Your task to perform on an android device: turn off improve location accuracy Image 0: 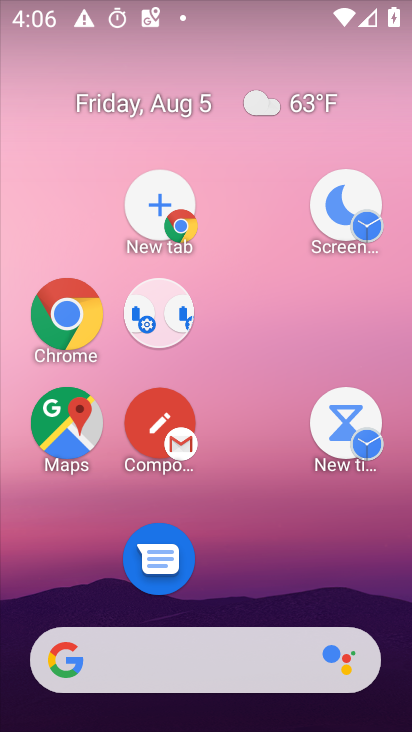
Step 0: click (163, 172)
Your task to perform on an android device: turn off improve location accuracy Image 1: 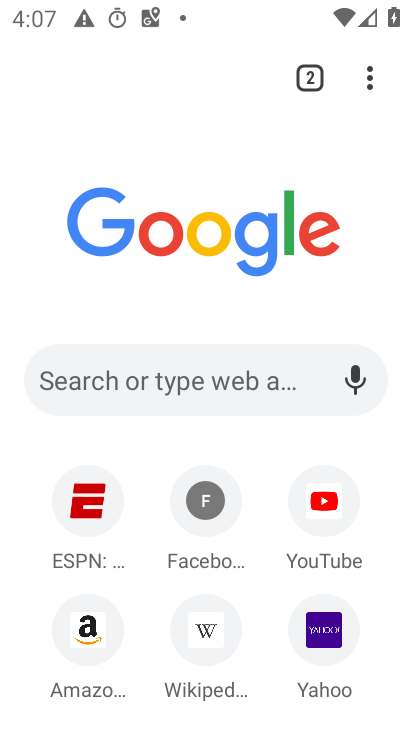
Step 1: click (364, 91)
Your task to perform on an android device: turn off improve location accuracy Image 2: 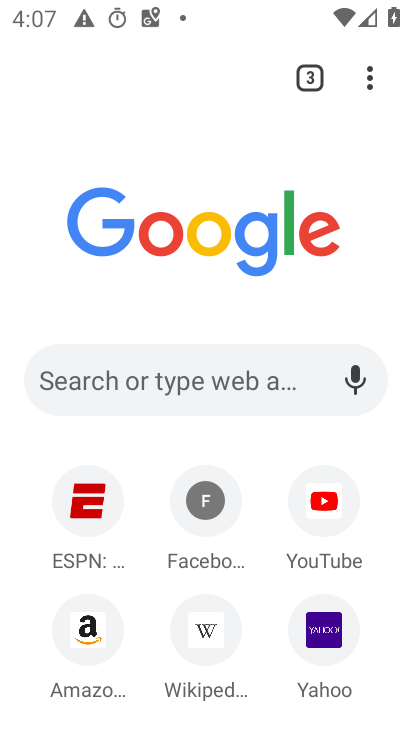
Step 2: press back button
Your task to perform on an android device: turn off improve location accuracy Image 3: 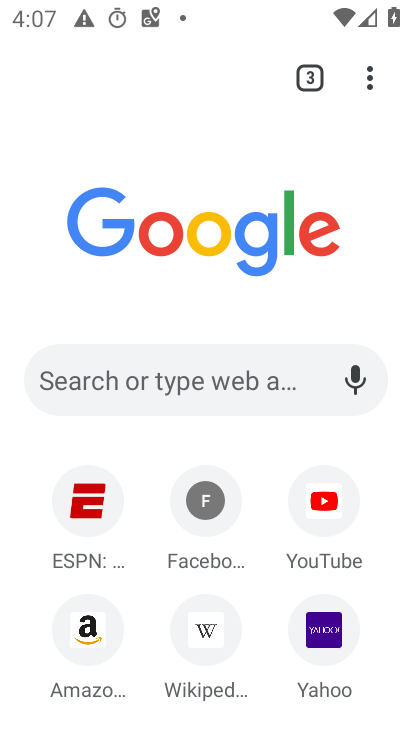
Step 3: press back button
Your task to perform on an android device: turn off improve location accuracy Image 4: 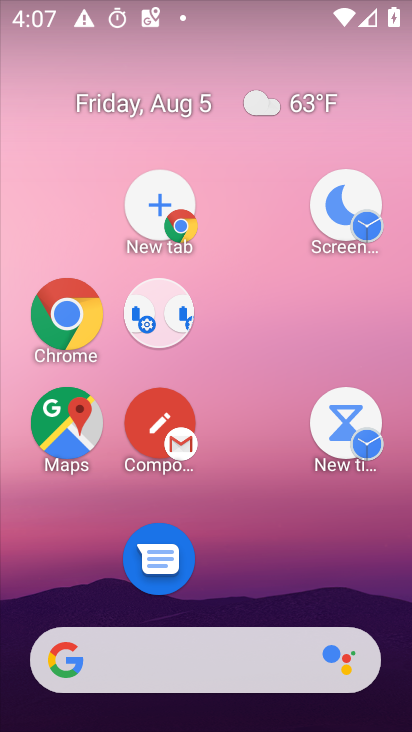
Step 4: press back button
Your task to perform on an android device: turn off improve location accuracy Image 5: 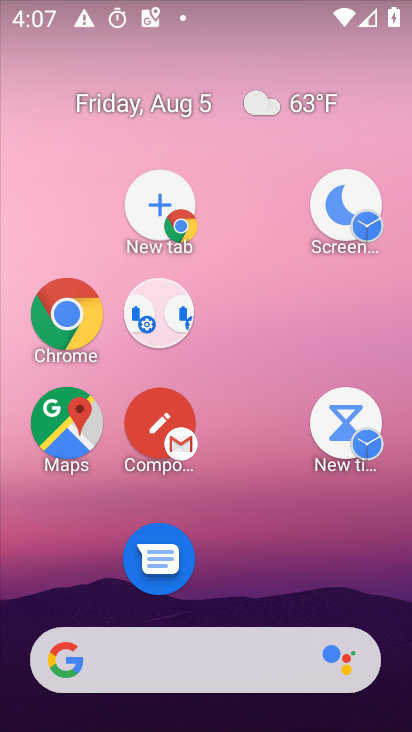
Step 5: press home button
Your task to perform on an android device: turn off improve location accuracy Image 6: 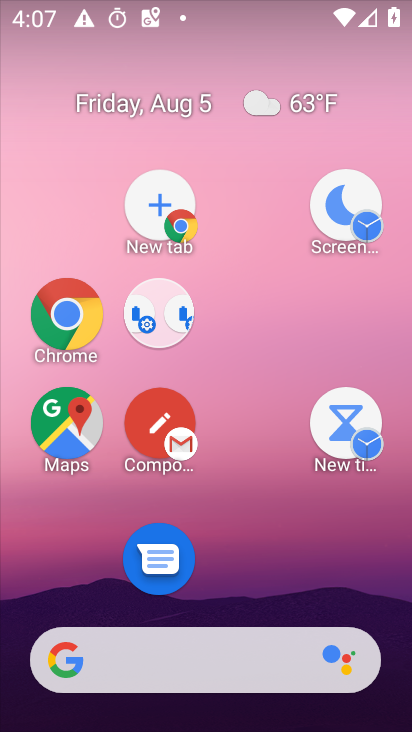
Step 6: press back button
Your task to perform on an android device: turn off improve location accuracy Image 7: 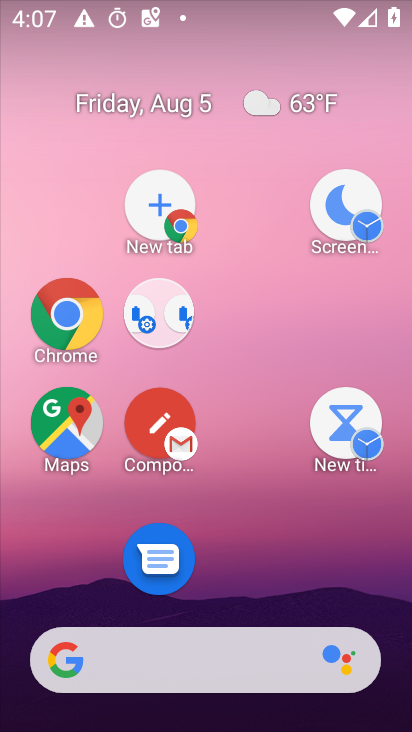
Step 7: drag from (189, 160) to (180, 196)
Your task to perform on an android device: turn off improve location accuracy Image 8: 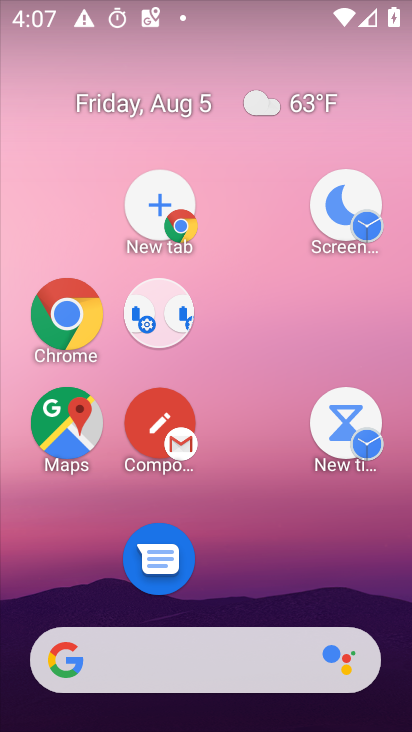
Step 8: drag from (185, 486) to (149, 234)
Your task to perform on an android device: turn off improve location accuracy Image 9: 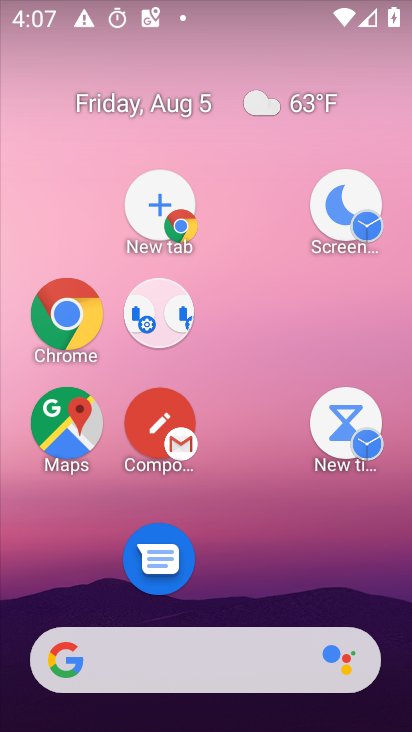
Step 9: drag from (222, 464) to (199, 110)
Your task to perform on an android device: turn off improve location accuracy Image 10: 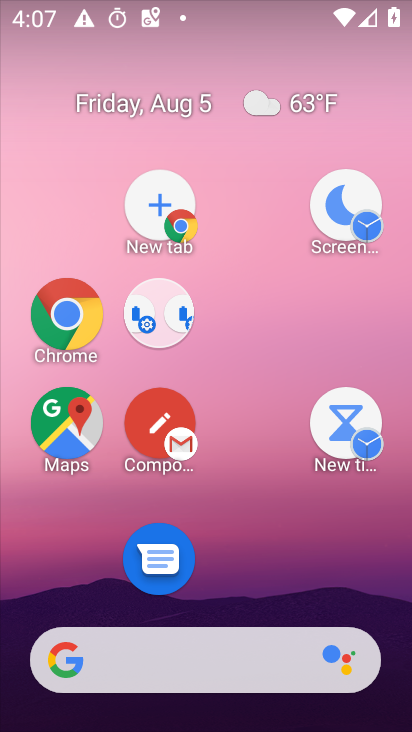
Step 10: drag from (208, 442) to (164, 96)
Your task to perform on an android device: turn off improve location accuracy Image 11: 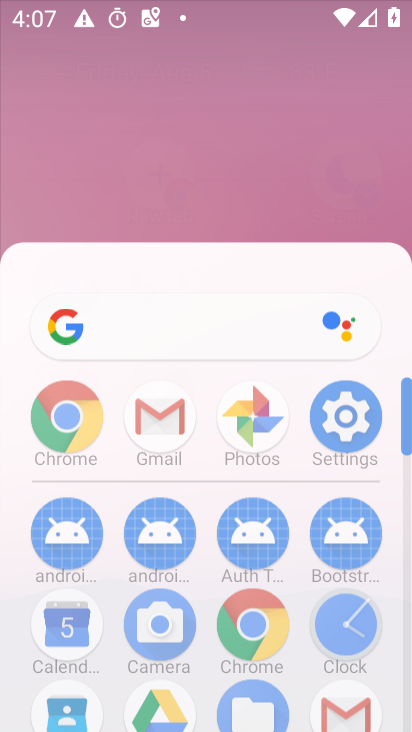
Step 11: drag from (229, 433) to (176, 50)
Your task to perform on an android device: turn off improve location accuracy Image 12: 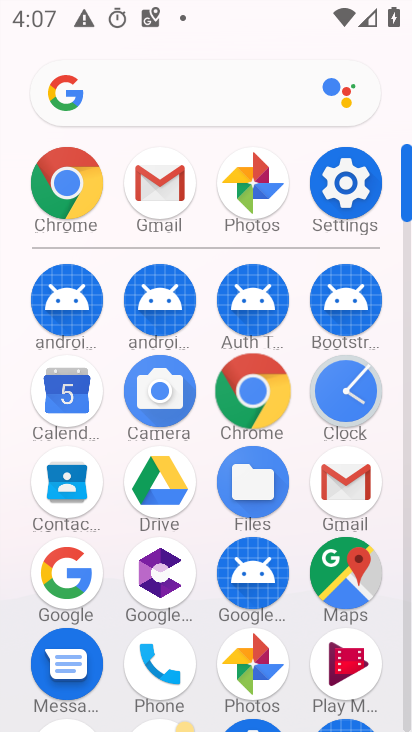
Step 12: drag from (203, 442) to (186, 24)
Your task to perform on an android device: turn off improve location accuracy Image 13: 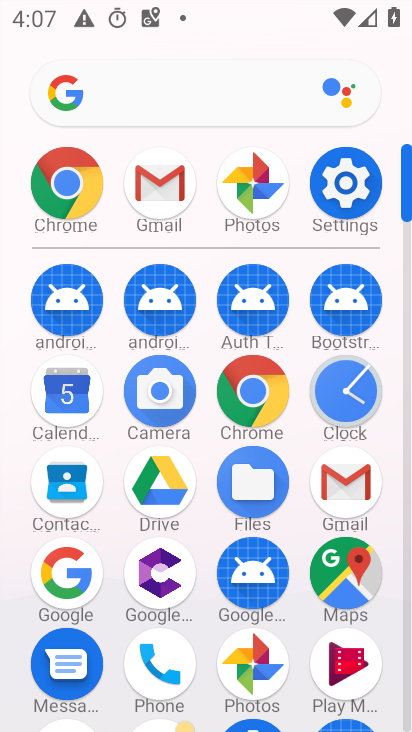
Step 13: click (347, 180)
Your task to perform on an android device: turn off improve location accuracy Image 14: 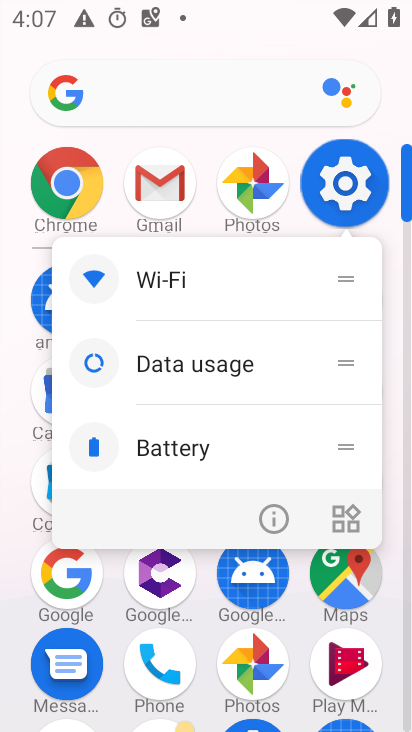
Step 14: click (347, 180)
Your task to perform on an android device: turn off improve location accuracy Image 15: 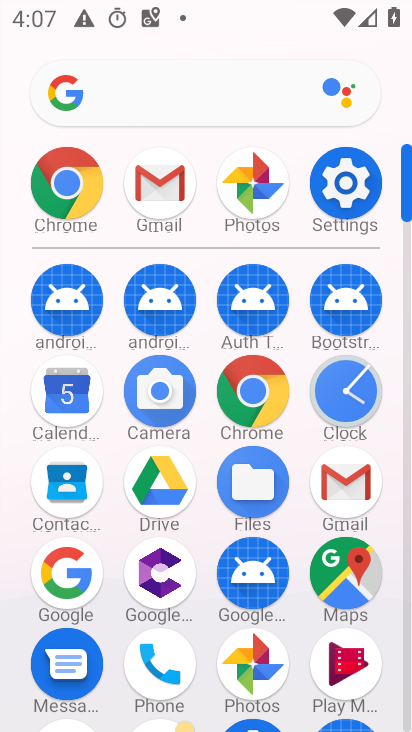
Step 15: click (347, 187)
Your task to perform on an android device: turn off improve location accuracy Image 16: 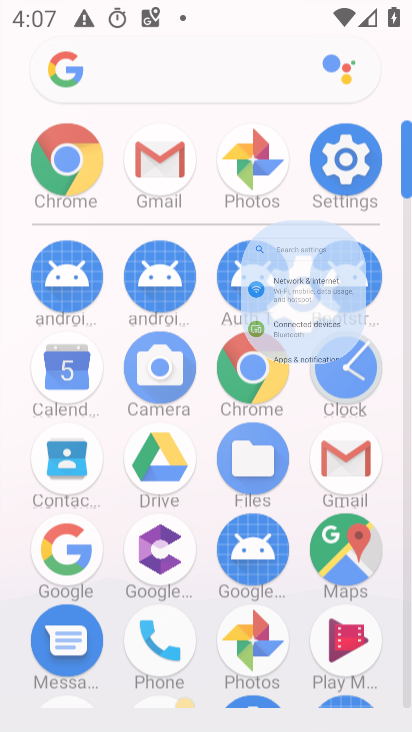
Step 16: click (344, 194)
Your task to perform on an android device: turn off improve location accuracy Image 17: 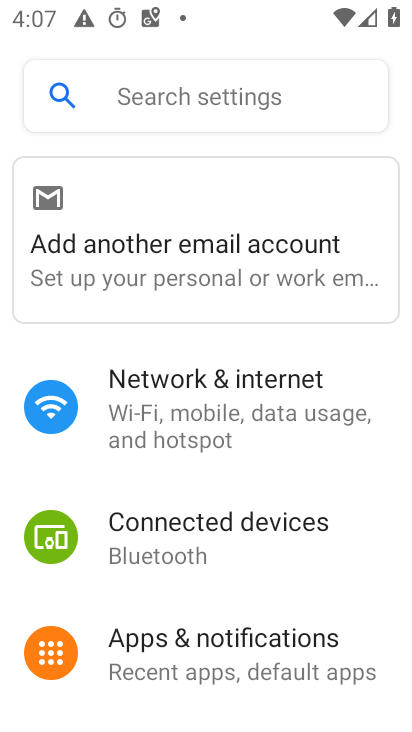
Step 17: drag from (212, 643) to (244, 232)
Your task to perform on an android device: turn off improve location accuracy Image 18: 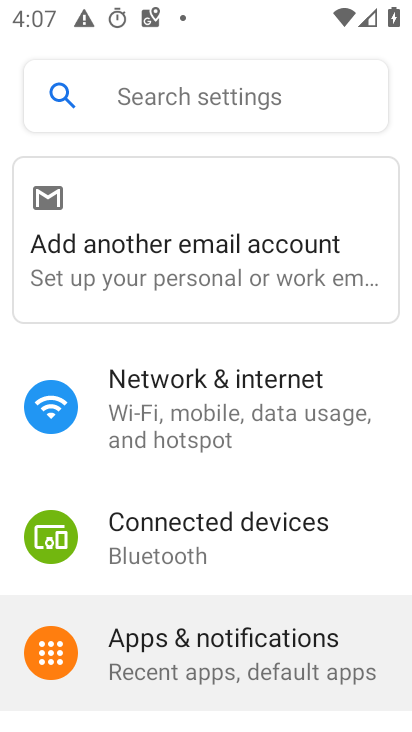
Step 18: drag from (231, 468) to (188, 190)
Your task to perform on an android device: turn off improve location accuracy Image 19: 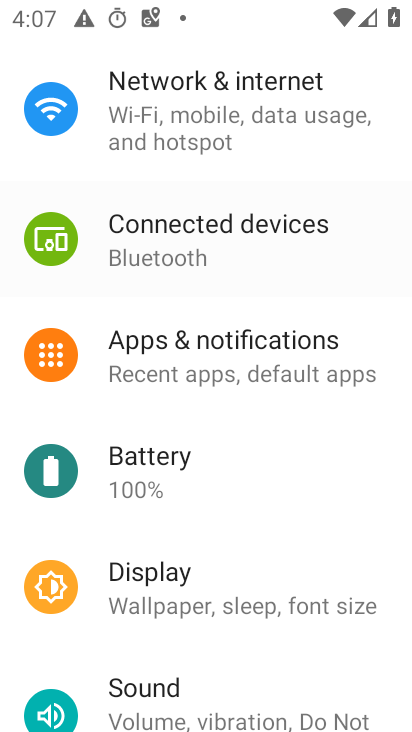
Step 19: drag from (185, 422) to (176, 241)
Your task to perform on an android device: turn off improve location accuracy Image 20: 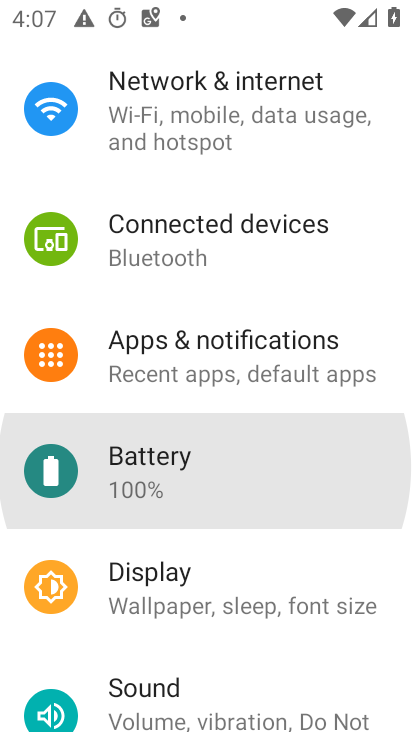
Step 20: drag from (198, 608) to (186, 282)
Your task to perform on an android device: turn off improve location accuracy Image 21: 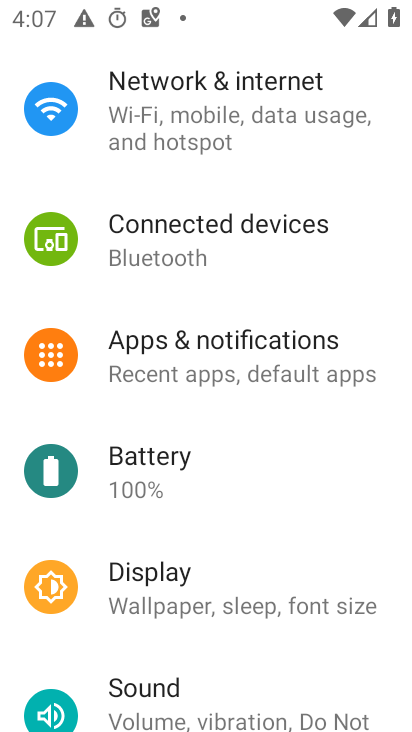
Step 21: drag from (190, 500) to (194, 201)
Your task to perform on an android device: turn off improve location accuracy Image 22: 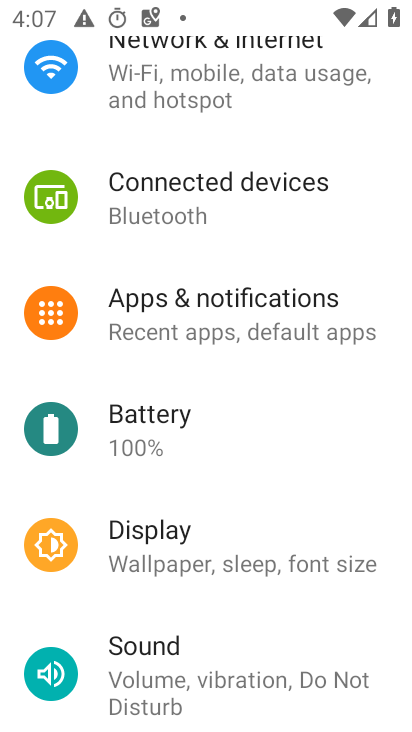
Step 22: drag from (190, 561) to (195, 233)
Your task to perform on an android device: turn off improve location accuracy Image 23: 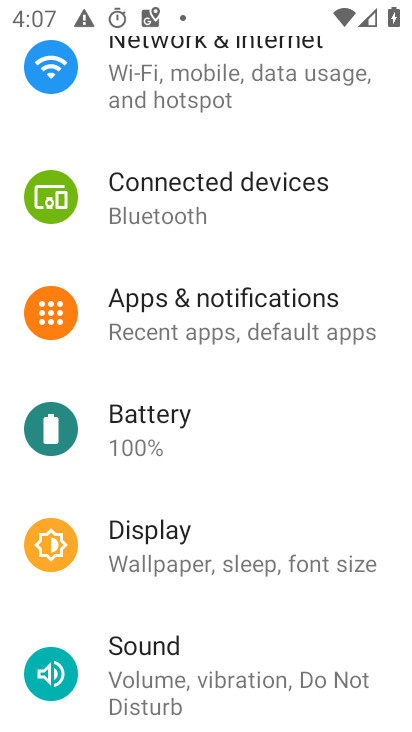
Step 23: drag from (182, 550) to (220, 277)
Your task to perform on an android device: turn off improve location accuracy Image 24: 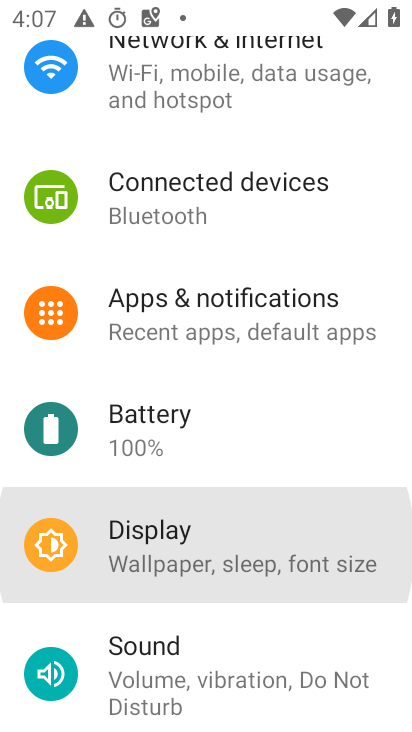
Step 24: drag from (177, 544) to (115, 252)
Your task to perform on an android device: turn off improve location accuracy Image 25: 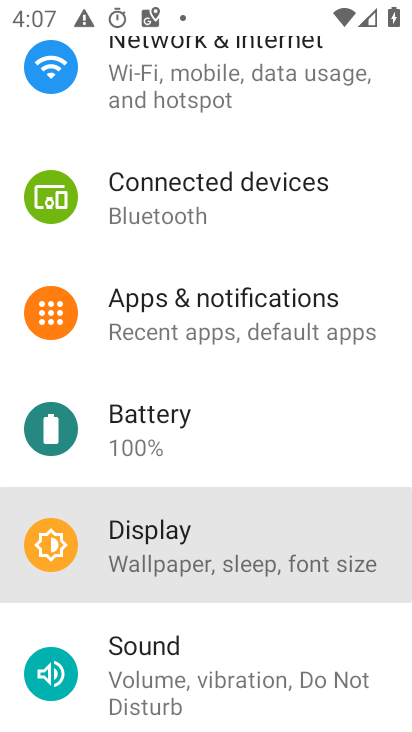
Step 25: drag from (72, 556) to (76, 284)
Your task to perform on an android device: turn off improve location accuracy Image 26: 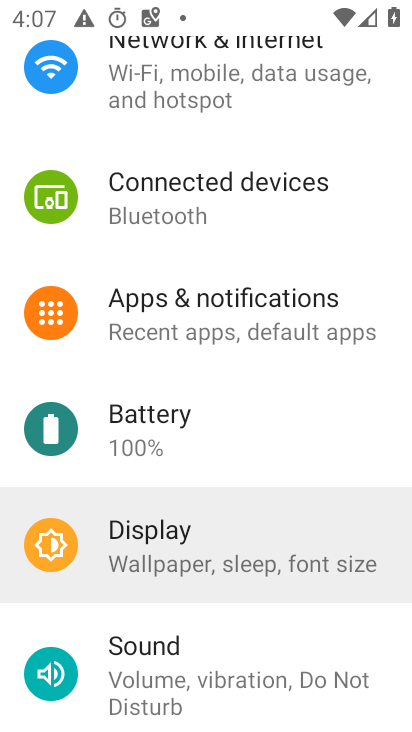
Step 26: drag from (207, 491) to (179, 239)
Your task to perform on an android device: turn off improve location accuracy Image 27: 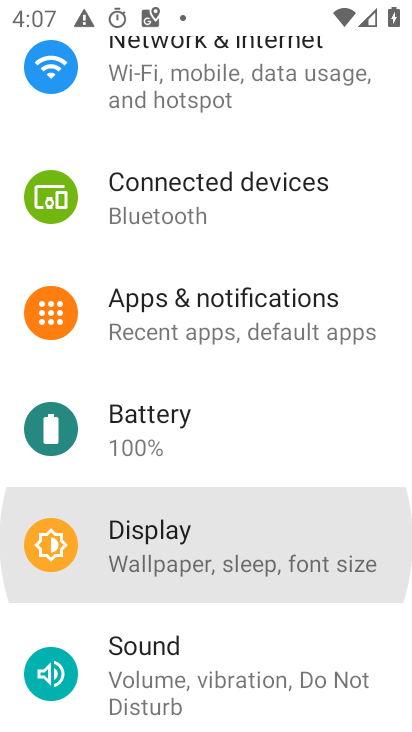
Step 27: drag from (179, 212) to (179, 526)
Your task to perform on an android device: turn off improve location accuracy Image 28: 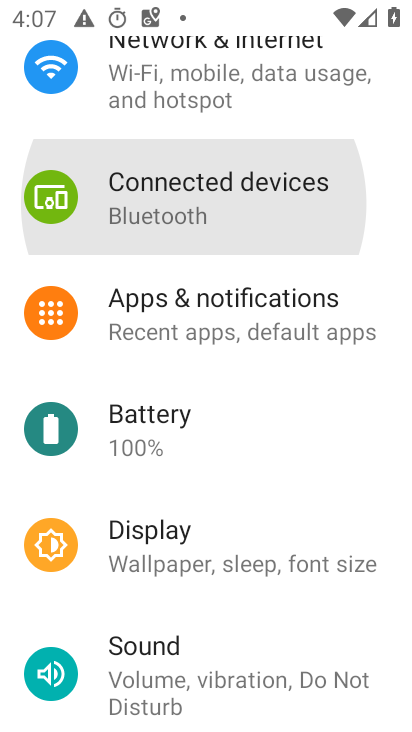
Step 28: drag from (142, 270) to (218, 612)
Your task to perform on an android device: turn off improve location accuracy Image 29: 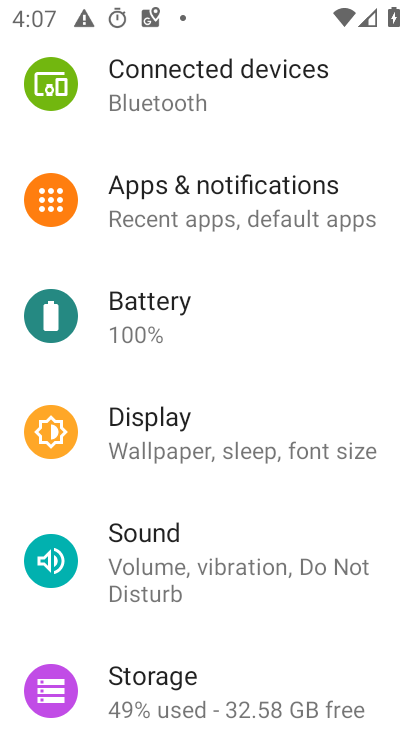
Step 29: drag from (196, 328) to (197, 646)
Your task to perform on an android device: turn off improve location accuracy Image 30: 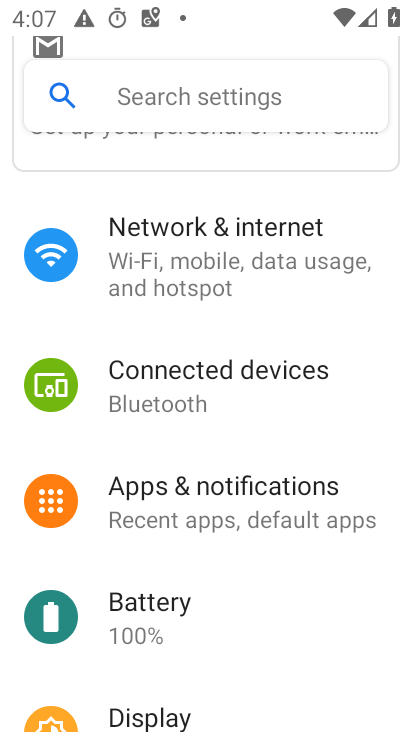
Step 30: drag from (208, 320) to (143, 314)
Your task to perform on an android device: turn off improve location accuracy Image 31: 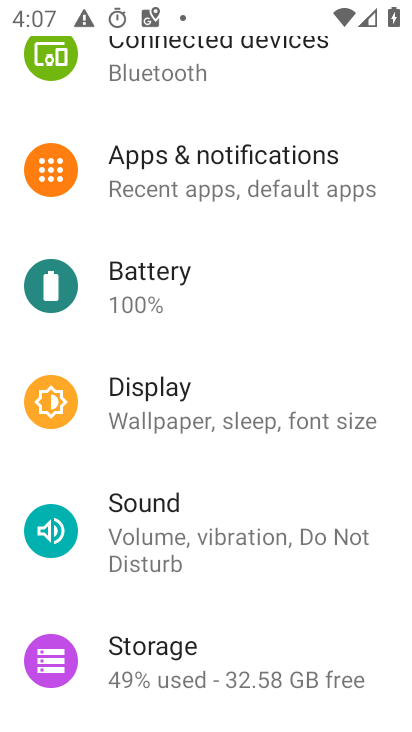
Step 31: drag from (168, 527) to (168, 350)
Your task to perform on an android device: turn off improve location accuracy Image 32: 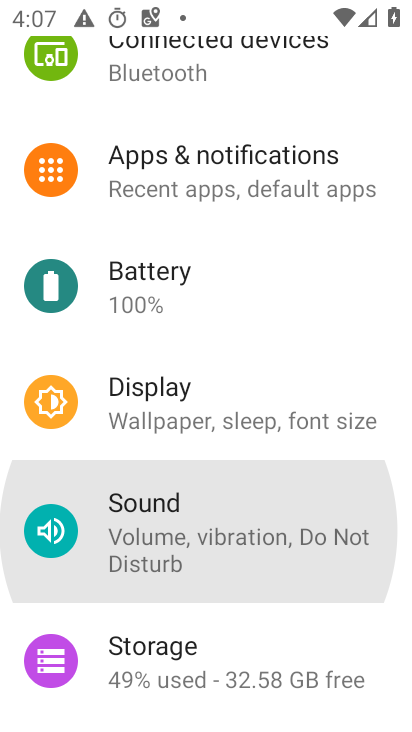
Step 32: drag from (192, 554) to (192, 396)
Your task to perform on an android device: turn off improve location accuracy Image 33: 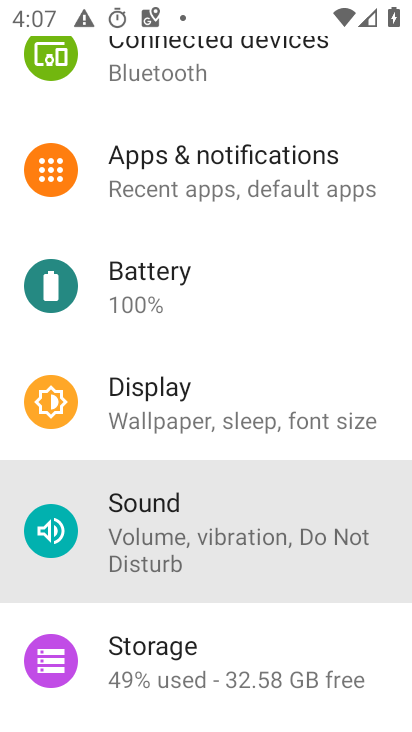
Step 33: drag from (244, 576) to (244, 364)
Your task to perform on an android device: turn off improve location accuracy Image 34: 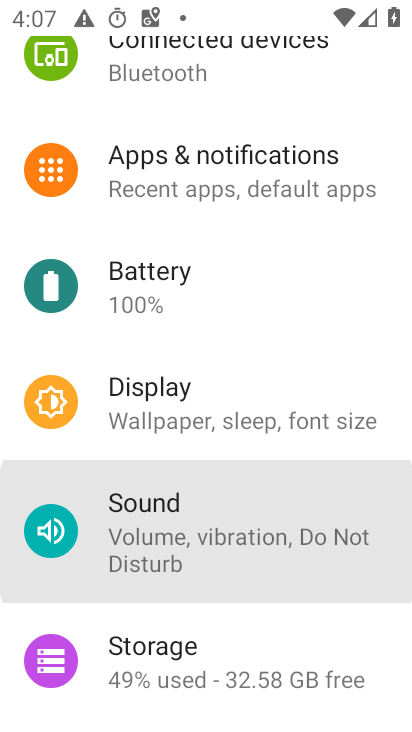
Step 34: drag from (253, 572) to (227, 338)
Your task to perform on an android device: turn off improve location accuracy Image 35: 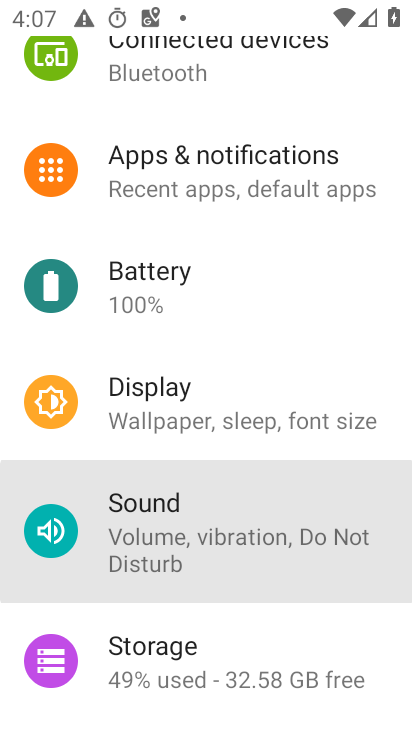
Step 35: drag from (232, 587) to (234, 317)
Your task to perform on an android device: turn off improve location accuracy Image 36: 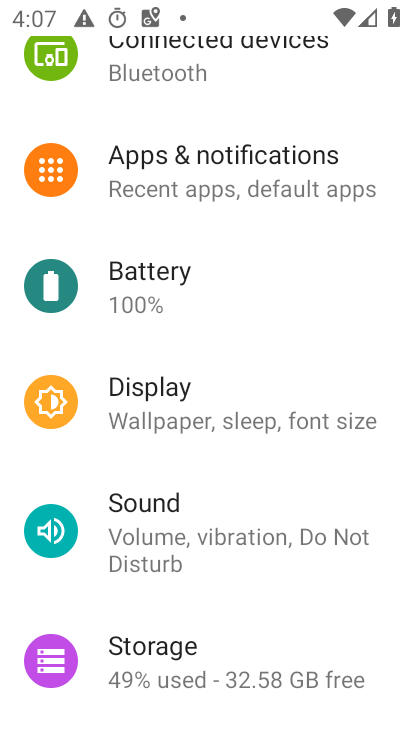
Step 36: drag from (232, 595) to (210, 365)
Your task to perform on an android device: turn off improve location accuracy Image 37: 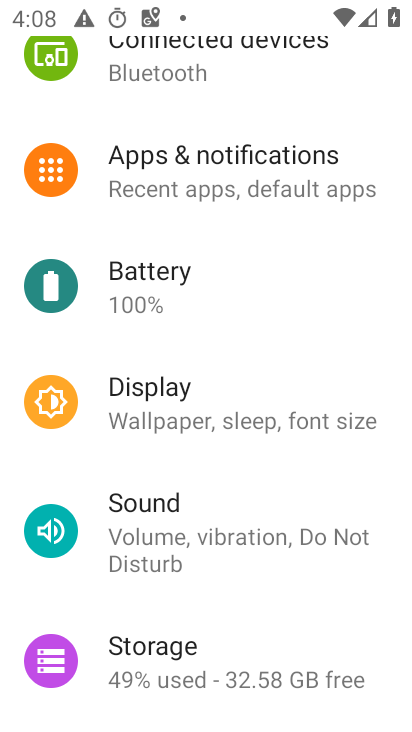
Step 37: drag from (177, 250) to (202, 602)
Your task to perform on an android device: turn off improve location accuracy Image 38: 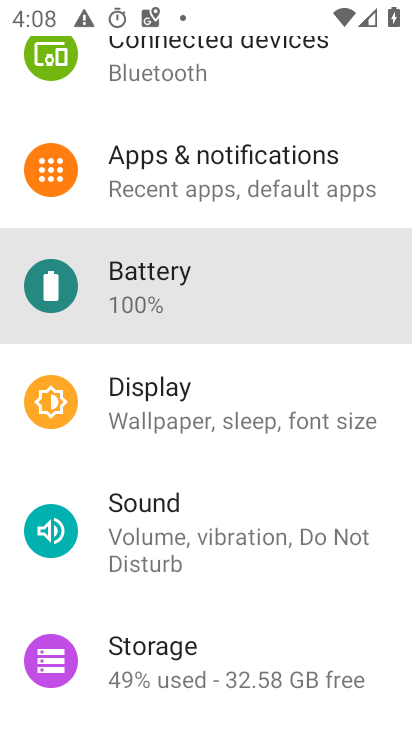
Step 38: drag from (168, 353) to (188, 583)
Your task to perform on an android device: turn off improve location accuracy Image 39: 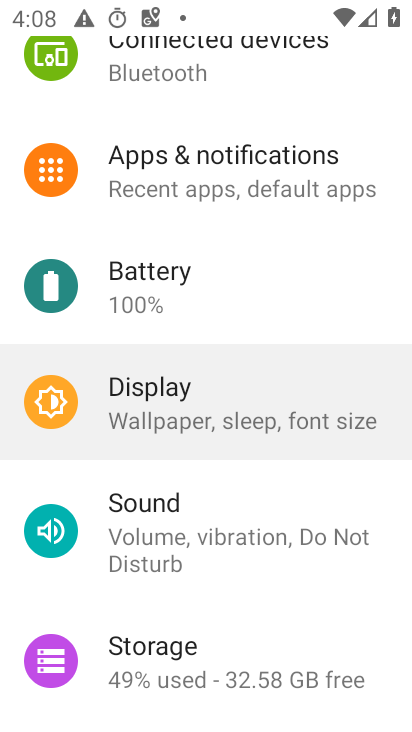
Step 39: drag from (149, 358) to (193, 581)
Your task to perform on an android device: turn off improve location accuracy Image 40: 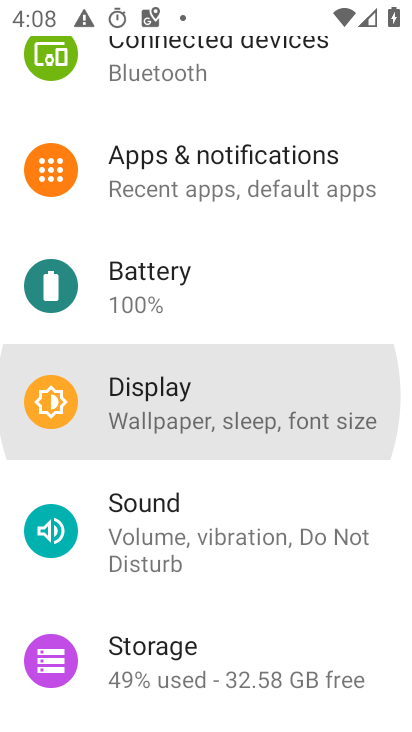
Step 40: drag from (204, 369) to (269, 639)
Your task to perform on an android device: turn off improve location accuracy Image 41: 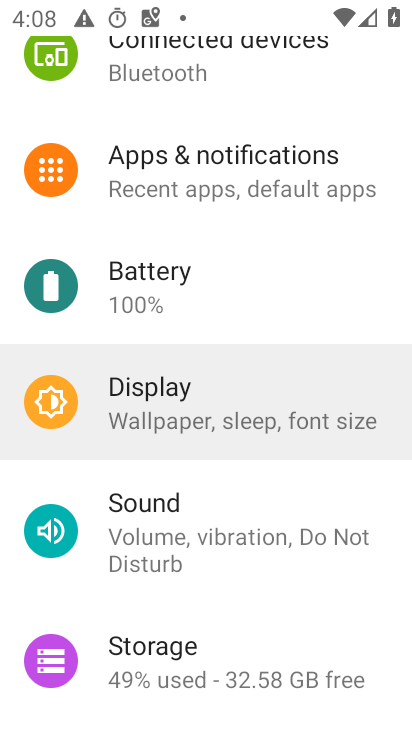
Step 41: drag from (212, 422) to (268, 628)
Your task to perform on an android device: turn off improve location accuracy Image 42: 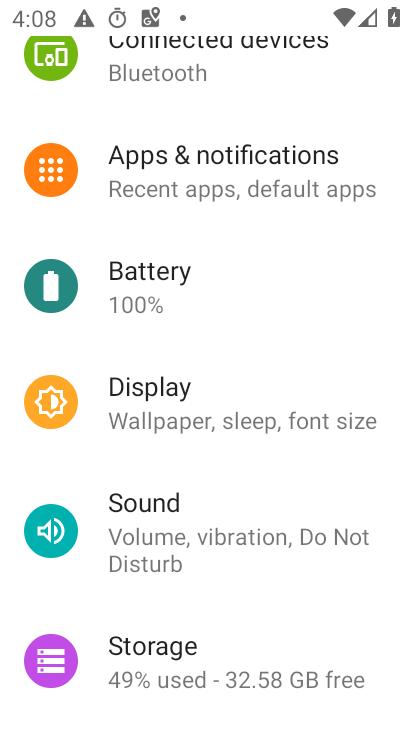
Step 42: drag from (206, 288) to (239, 526)
Your task to perform on an android device: turn off improve location accuracy Image 43: 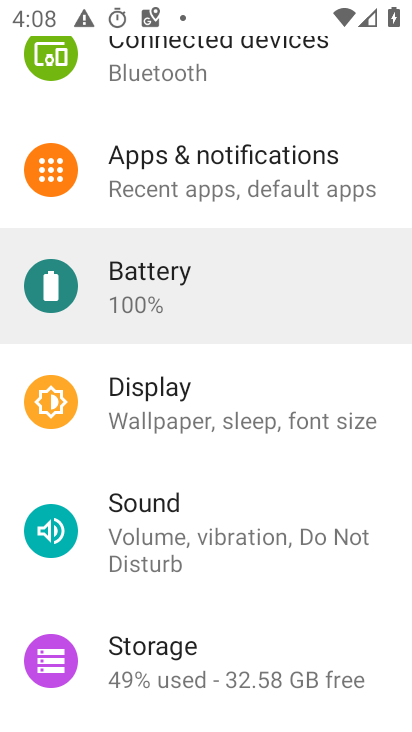
Step 43: drag from (217, 237) to (301, 666)
Your task to perform on an android device: turn off improve location accuracy Image 44: 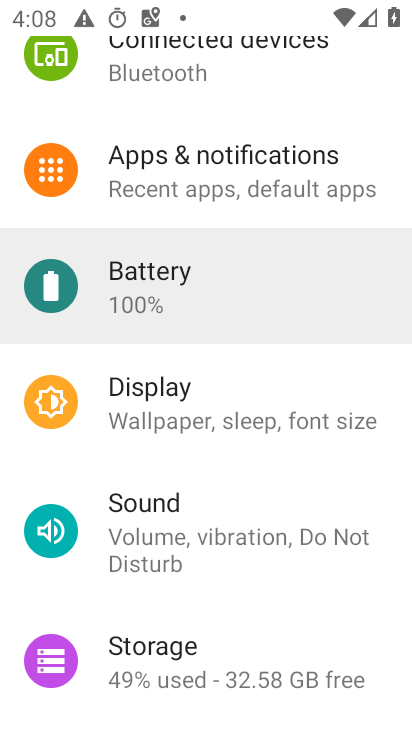
Step 44: drag from (171, 187) to (223, 533)
Your task to perform on an android device: turn off improve location accuracy Image 45: 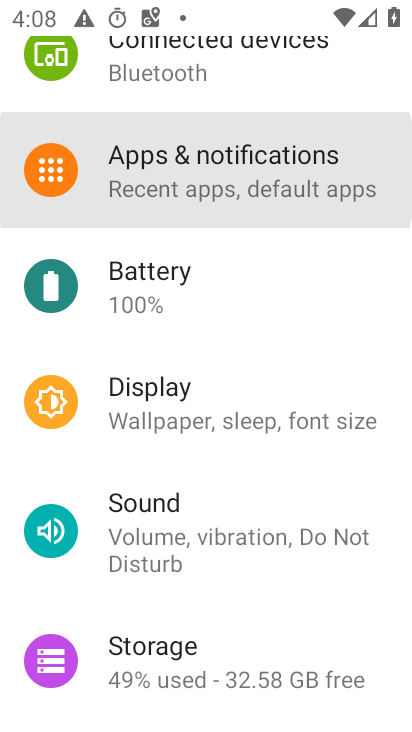
Step 45: drag from (202, 178) to (238, 576)
Your task to perform on an android device: turn off improve location accuracy Image 46: 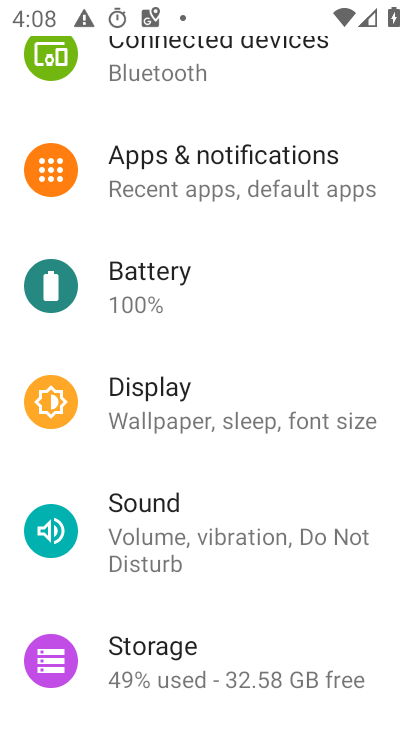
Step 46: drag from (219, 567) to (195, 212)
Your task to perform on an android device: turn off improve location accuracy Image 47: 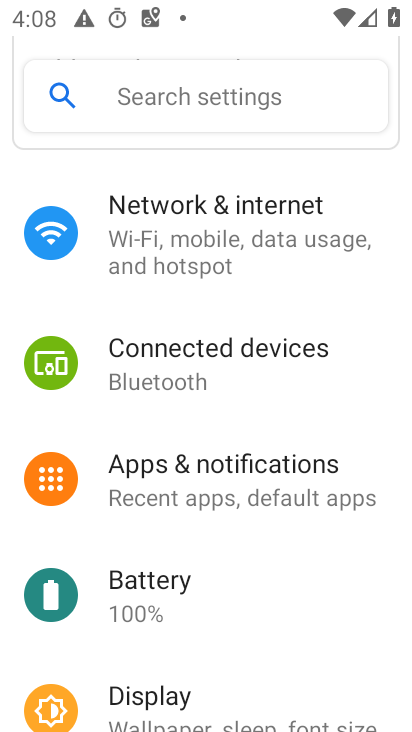
Step 47: drag from (199, 500) to (201, 208)
Your task to perform on an android device: turn off improve location accuracy Image 48: 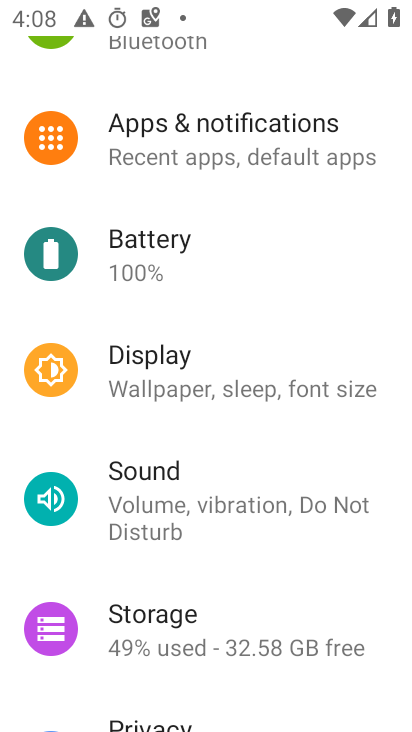
Step 48: drag from (243, 643) to (191, 227)
Your task to perform on an android device: turn off improve location accuracy Image 49: 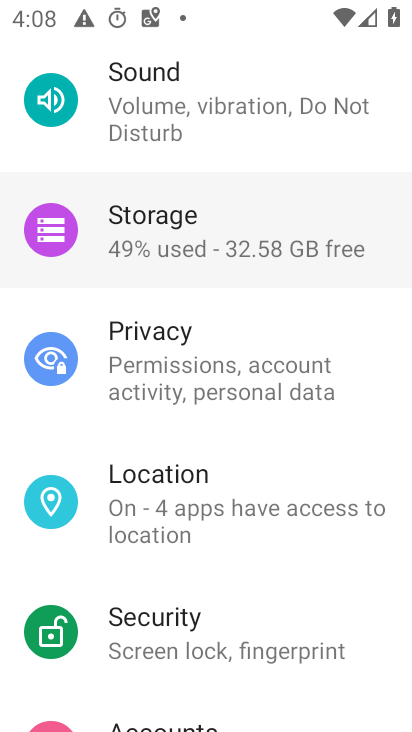
Step 49: drag from (182, 588) to (158, 176)
Your task to perform on an android device: turn off improve location accuracy Image 50: 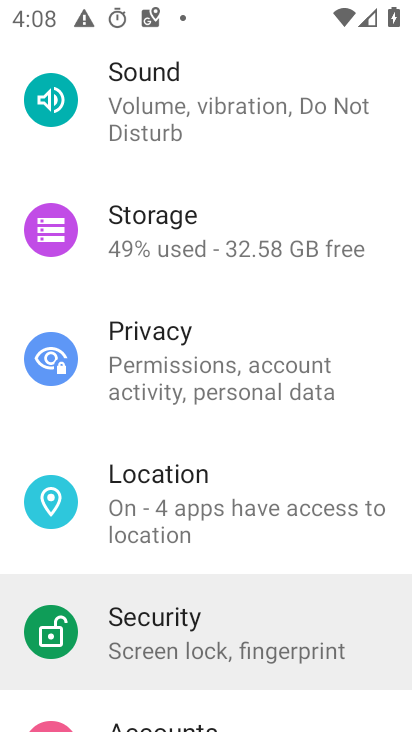
Step 50: drag from (150, 552) to (155, 207)
Your task to perform on an android device: turn off improve location accuracy Image 51: 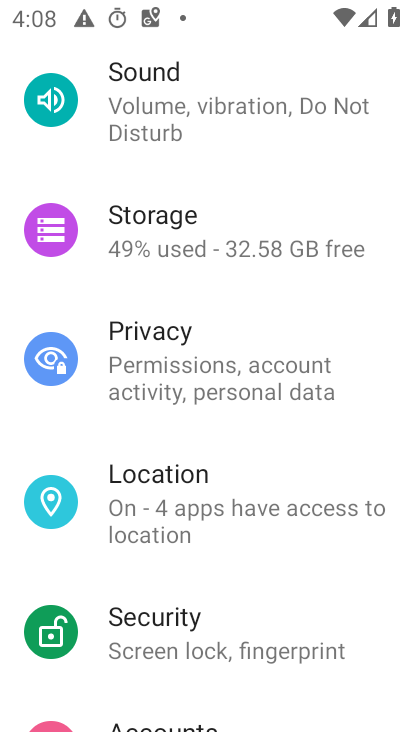
Step 51: click (178, 477)
Your task to perform on an android device: turn off improve location accuracy Image 52: 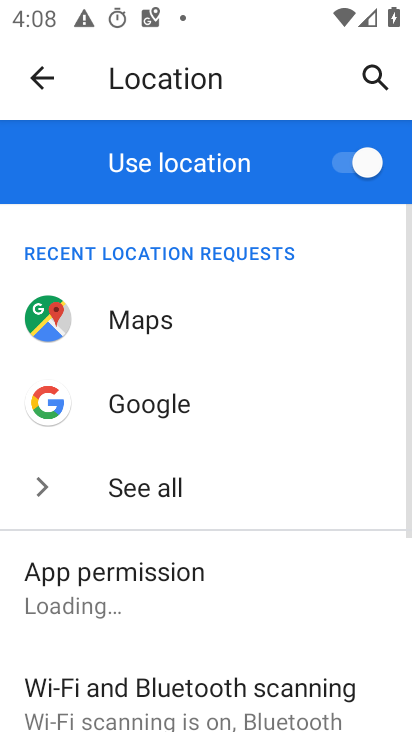
Step 52: drag from (227, 531) to (185, 377)
Your task to perform on an android device: turn off improve location accuracy Image 53: 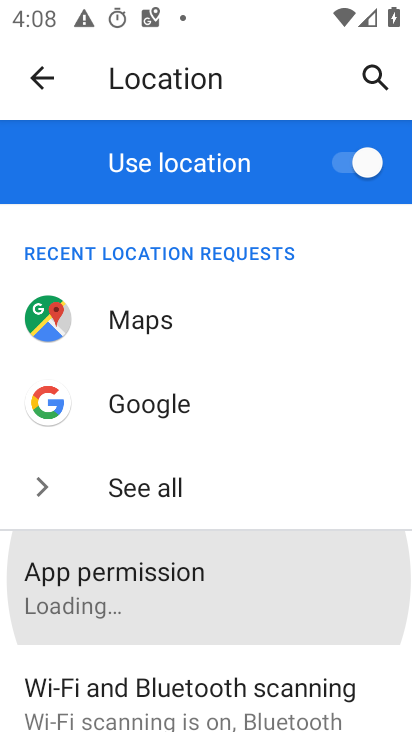
Step 53: drag from (183, 597) to (183, 467)
Your task to perform on an android device: turn off improve location accuracy Image 54: 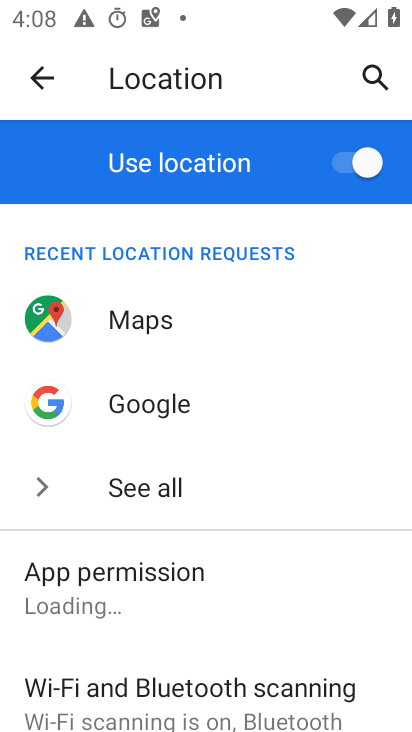
Step 54: drag from (212, 680) to (147, 299)
Your task to perform on an android device: turn off improve location accuracy Image 55: 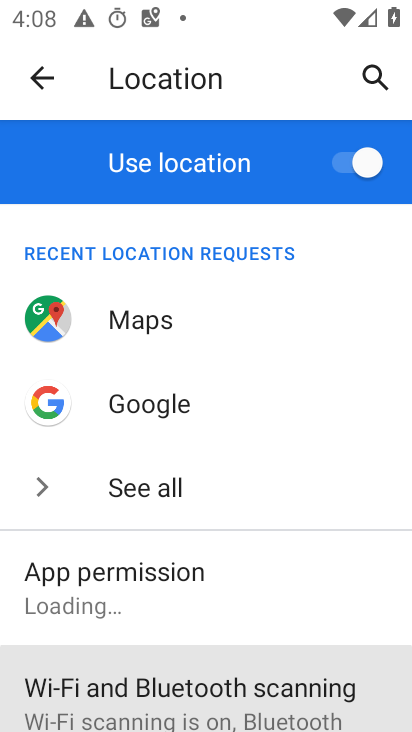
Step 55: drag from (202, 579) to (202, 302)
Your task to perform on an android device: turn off improve location accuracy Image 56: 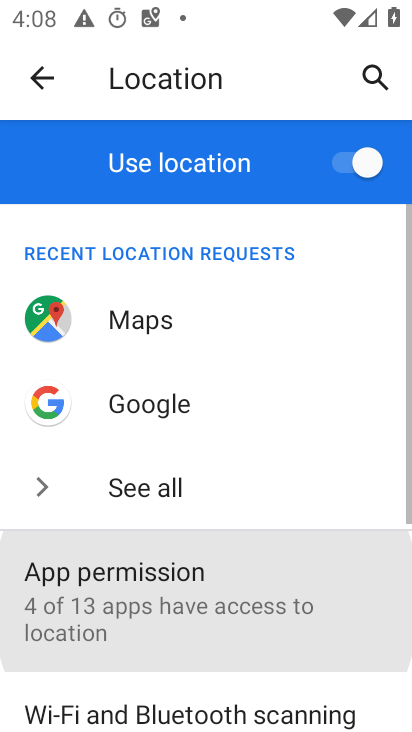
Step 56: drag from (200, 628) to (199, 430)
Your task to perform on an android device: turn off improve location accuracy Image 57: 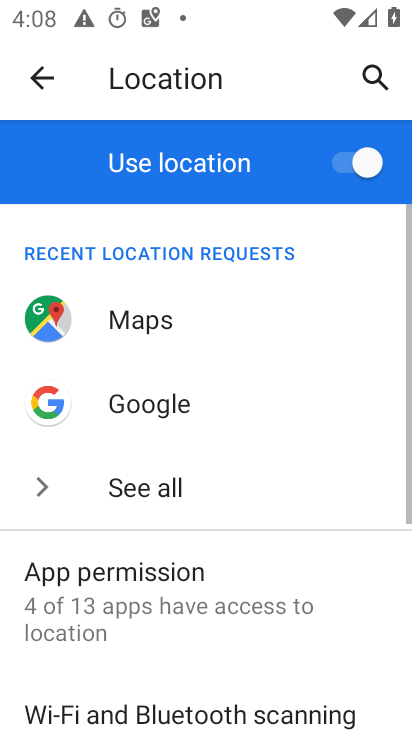
Step 57: drag from (256, 600) to (248, 425)
Your task to perform on an android device: turn off improve location accuracy Image 58: 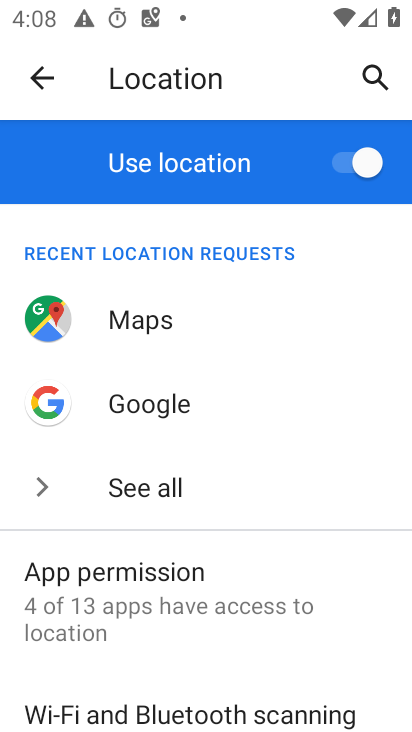
Step 58: drag from (233, 458) to (235, 268)
Your task to perform on an android device: turn off improve location accuracy Image 59: 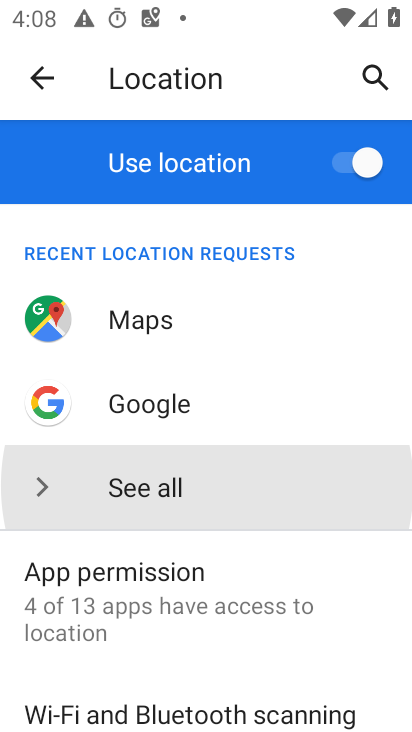
Step 59: drag from (229, 545) to (198, 348)
Your task to perform on an android device: turn off improve location accuracy Image 60: 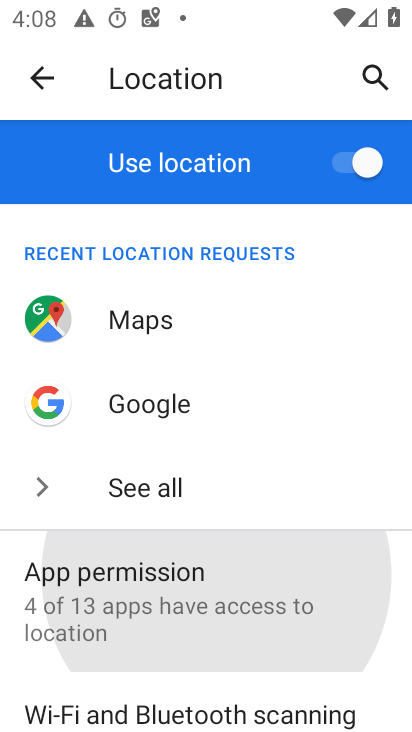
Step 60: drag from (173, 657) to (127, 345)
Your task to perform on an android device: turn off improve location accuracy Image 61: 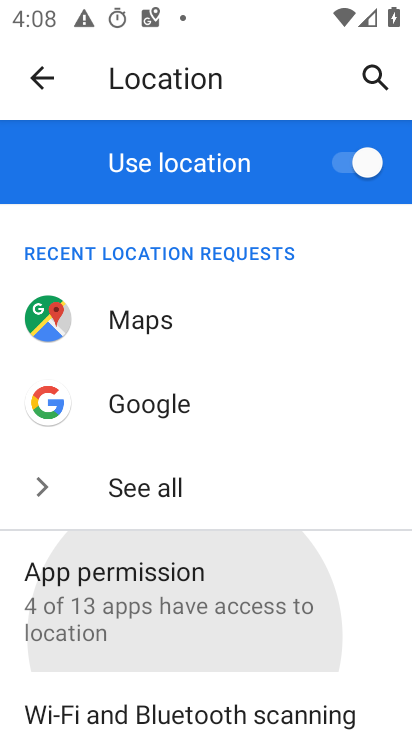
Step 61: drag from (162, 582) to (166, 378)
Your task to perform on an android device: turn off improve location accuracy Image 62: 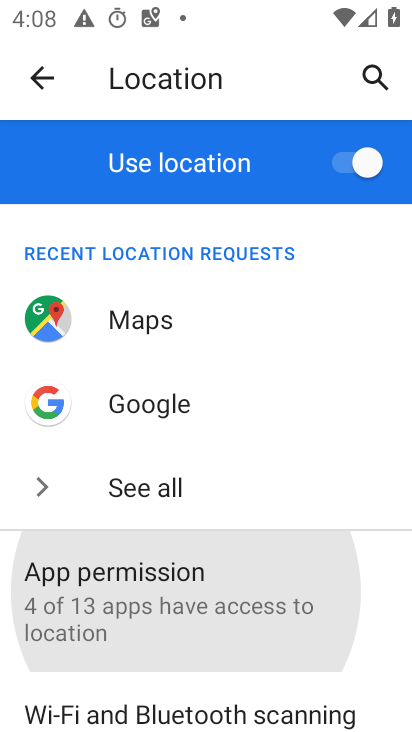
Step 62: drag from (226, 554) to (235, 345)
Your task to perform on an android device: turn off improve location accuracy Image 63: 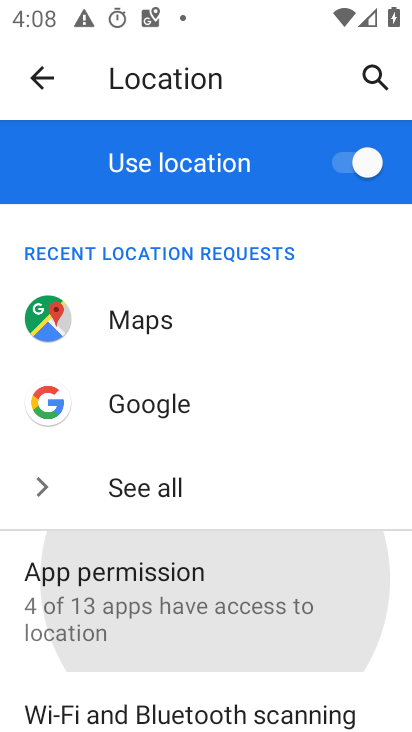
Step 63: drag from (243, 605) to (201, 288)
Your task to perform on an android device: turn off improve location accuracy Image 64: 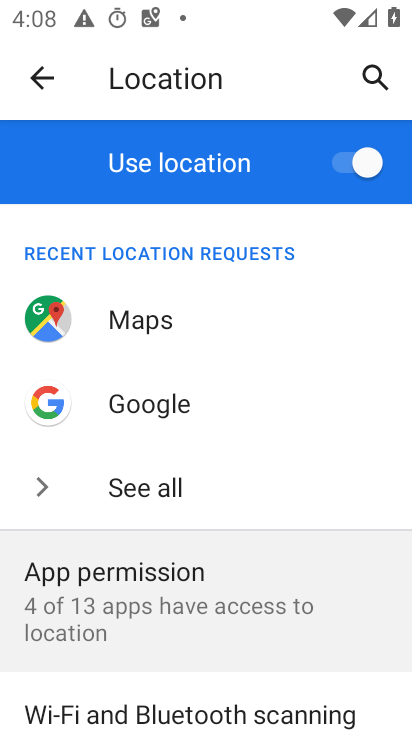
Step 64: drag from (236, 550) to (215, 340)
Your task to perform on an android device: turn off improve location accuracy Image 65: 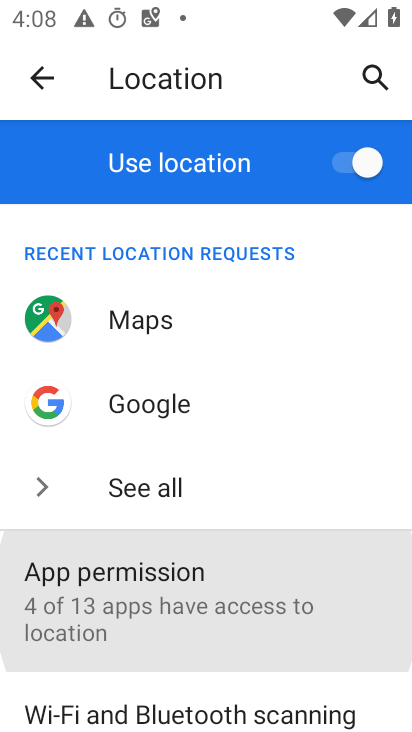
Step 65: drag from (214, 636) to (178, 225)
Your task to perform on an android device: turn off improve location accuracy Image 66: 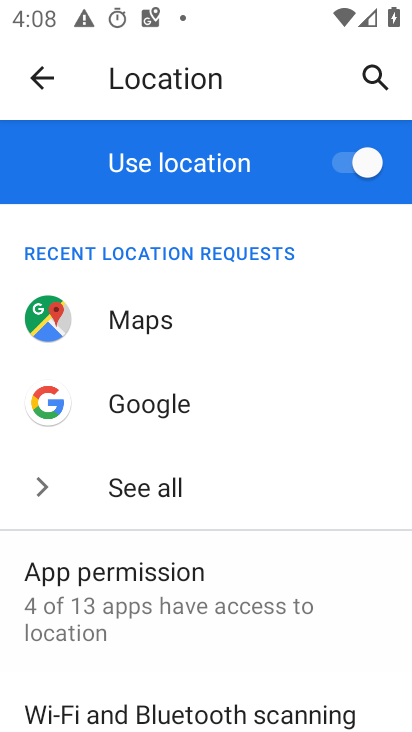
Step 66: drag from (219, 583) to (188, 152)
Your task to perform on an android device: turn off improve location accuracy Image 67: 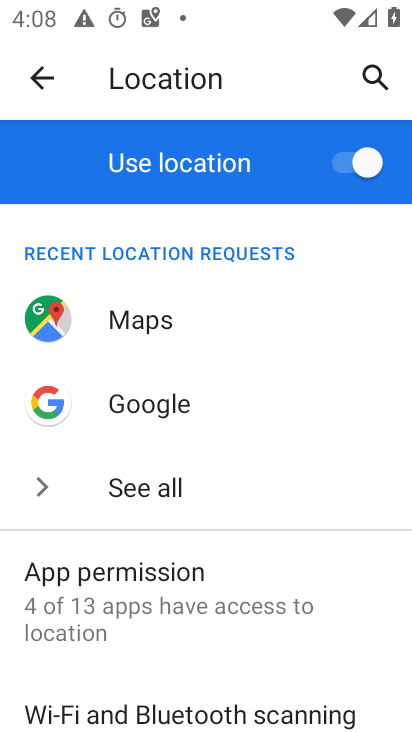
Step 67: drag from (174, 556) to (124, 149)
Your task to perform on an android device: turn off improve location accuracy Image 68: 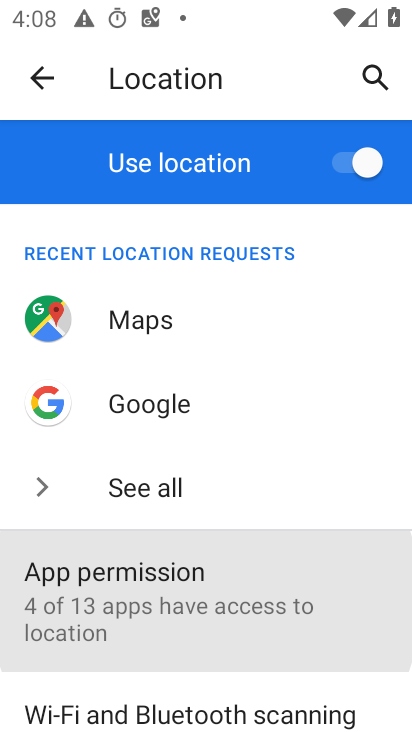
Step 68: drag from (170, 572) to (217, 156)
Your task to perform on an android device: turn off improve location accuracy Image 69: 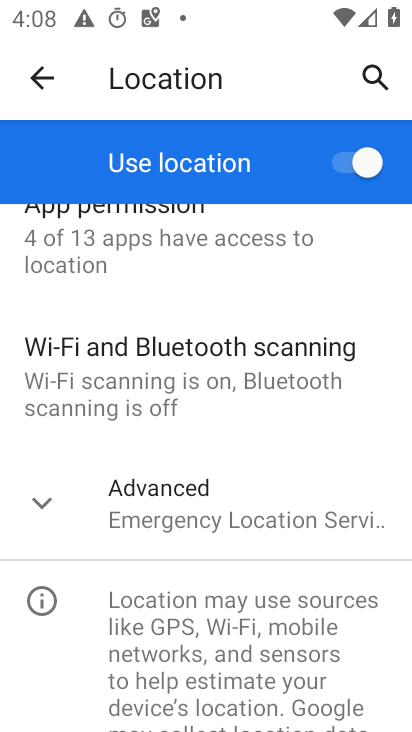
Step 69: click (177, 517)
Your task to perform on an android device: turn off improve location accuracy Image 70: 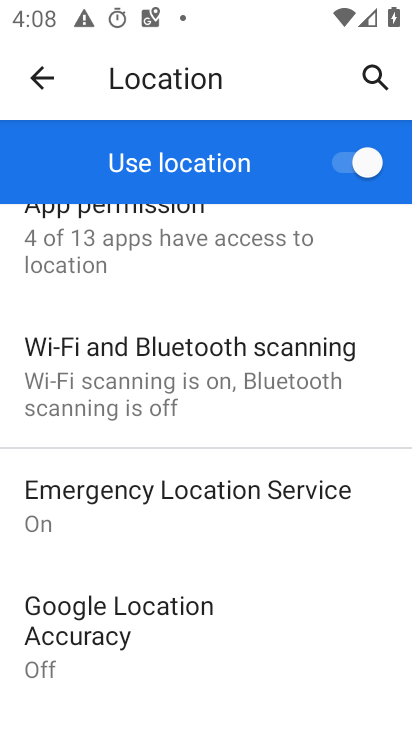
Step 70: click (71, 637)
Your task to perform on an android device: turn off improve location accuracy Image 71: 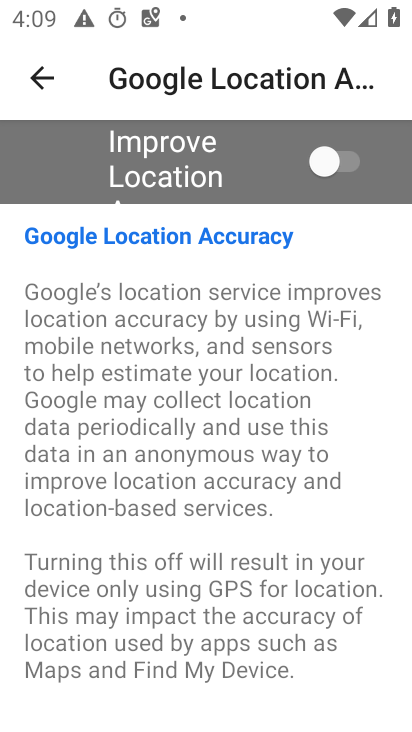
Step 71: task complete